Your task to perform on an android device: Search for seafood restaurants on Google Maps Image 0: 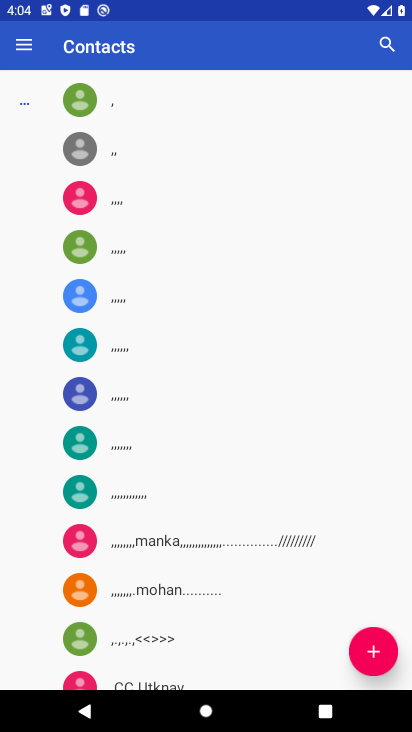
Step 0: press home button
Your task to perform on an android device: Search for seafood restaurants on Google Maps Image 1: 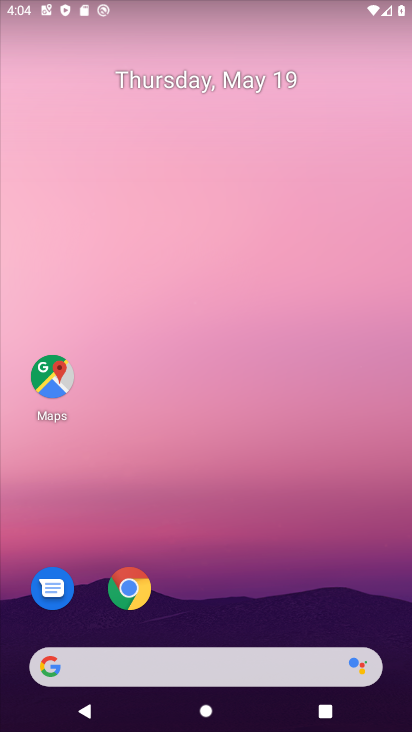
Step 1: click (75, 381)
Your task to perform on an android device: Search for seafood restaurants on Google Maps Image 2: 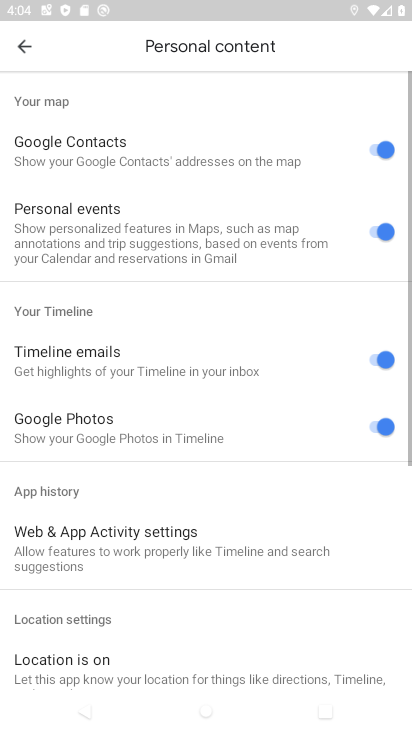
Step 2: click (24, 31)
Your task to perform on an android device: Search for seafood restaurants on Google Maps Image 3: 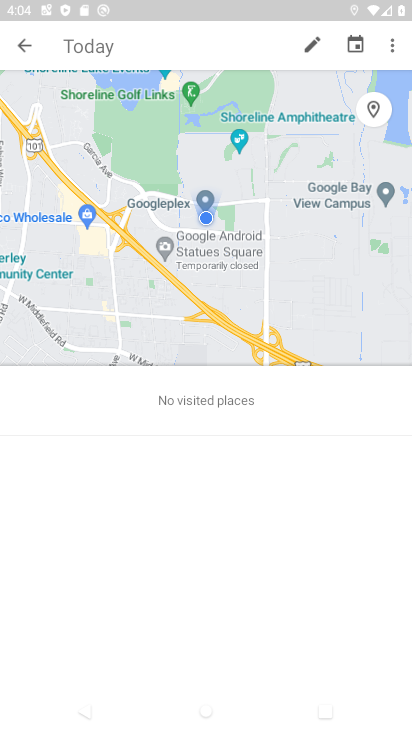
Step 3: click (24, 31)
Your task to perform on an android device: Search for seafood restaurants on Google Maps Image 4: 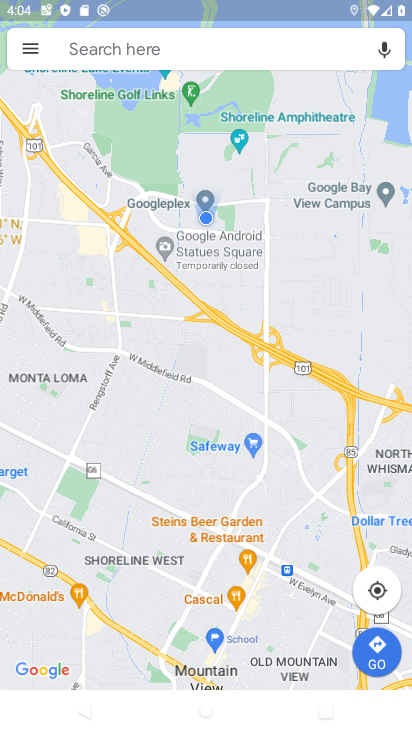
Step 4: click (189, 51)
Your task to perform on an android device: Search for seafood restaurants on Google Maps Image 5: 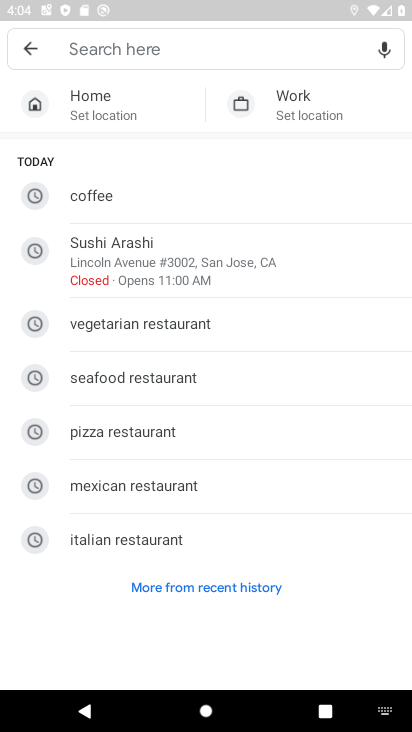
Step 5: click (142, 382)
Your task to perform on an android device: Search for seafood restaurants on Google Maps Image 6: 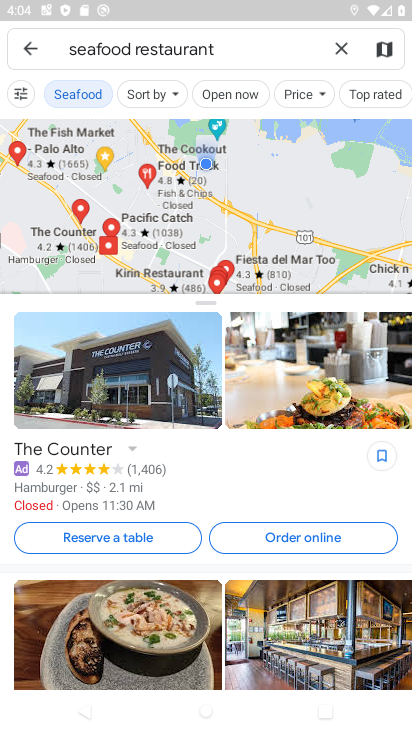
Step 6: task complete